Your task to perform on an android device: Go to internet settings Image 0: 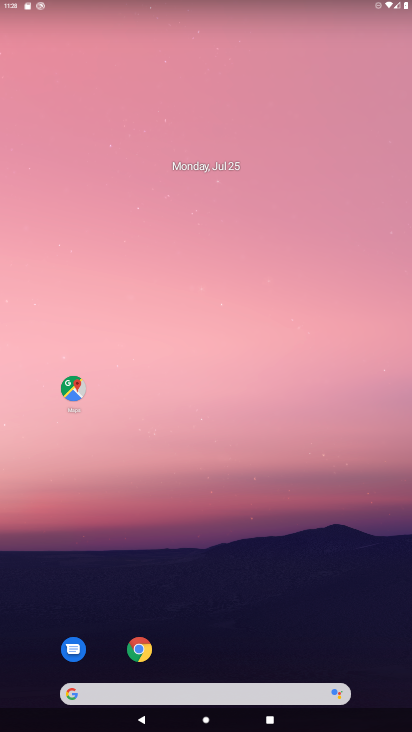
Step 0: drag from (383, 682) to (334, 178)
Your task to perform on an android device: Go to internet settings Image 1: 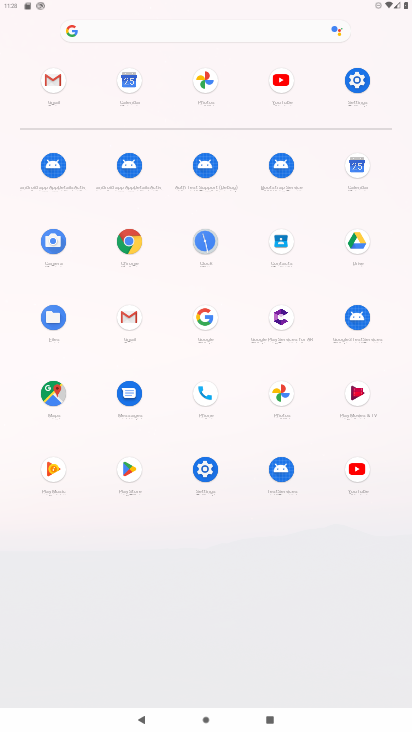
Step 1: click (204, 467)
Your task to perform on an android device: Go to internet settings Image 2: 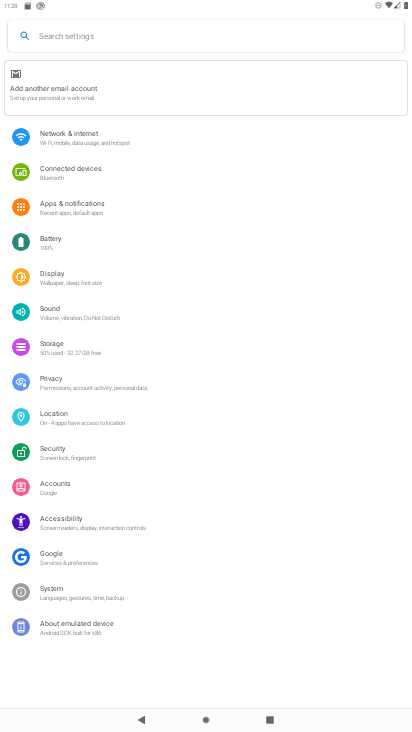
Step 2: click (53, 128)
Your task to perform on an android device: Go to internet settings Image 3: 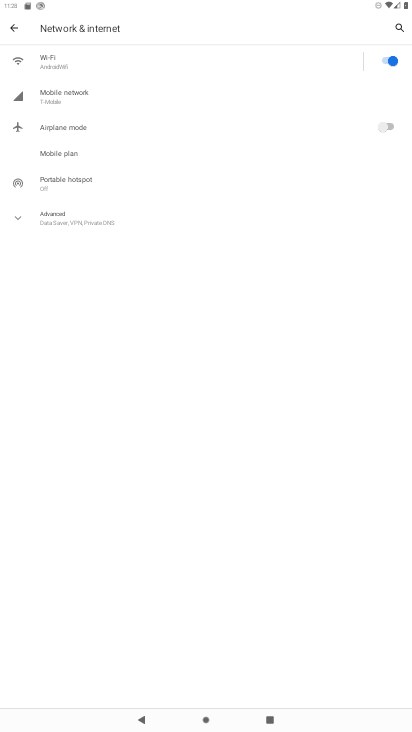
Step 3: click (44, 58)
Your task to perform on an android device: Go to internet settings Image 4: 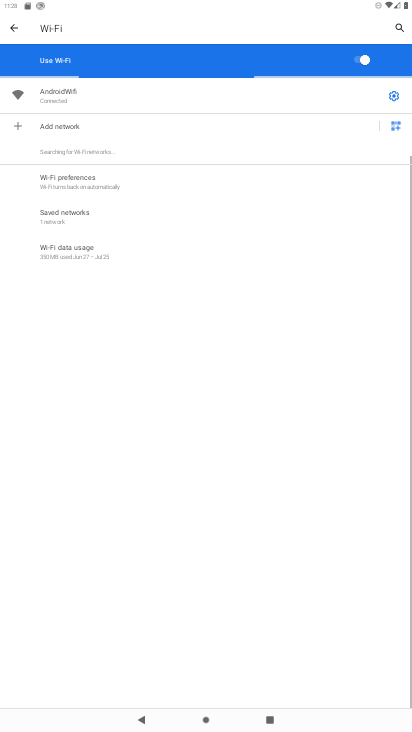
Step 4: click (397, 98)
Your task to perform on an android device: Go to internet settings Image 5: 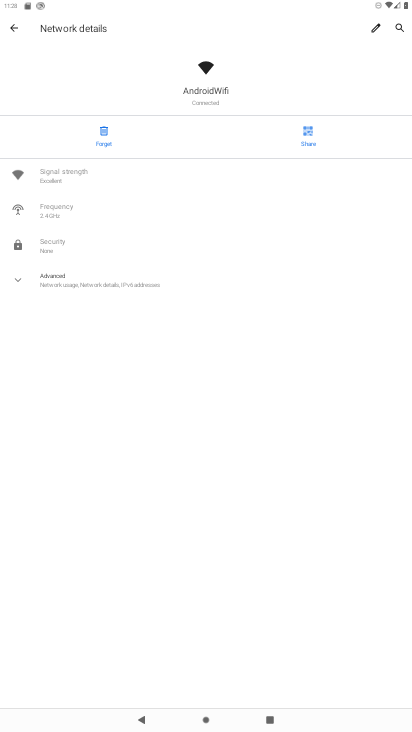
Step 5: task complete